Your task to perform on an android device: Open maps Image 0: 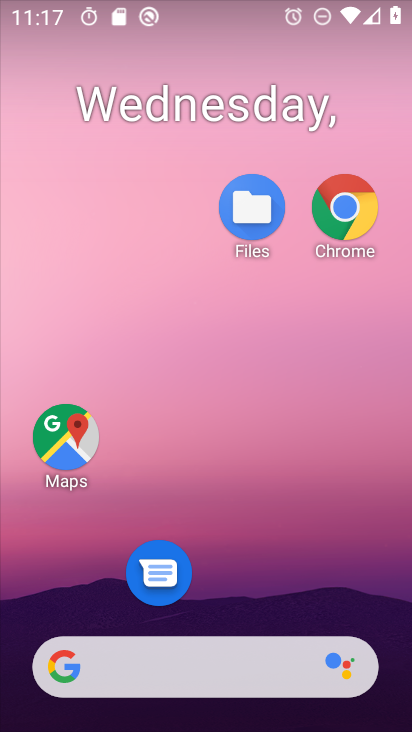
Step 0: drag from (207, 712) to (250, 179)
Your task to perform on an android device: Open maps Image 1: 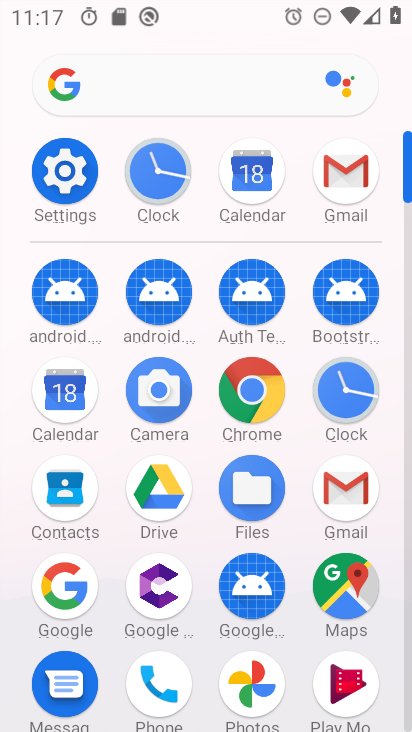
Step 1: drag from (229, 493) to (227, 267)
Your task to perform on an android device: Open maps Image 2: 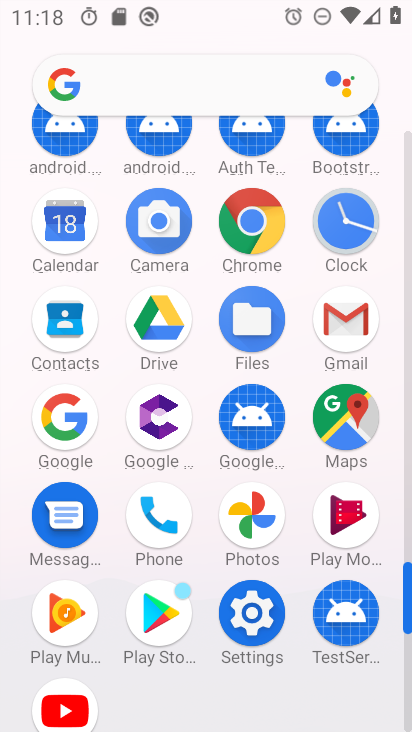
Step 2: click (340, 427)
Your task to perform on an android device: Open maps Image 3: 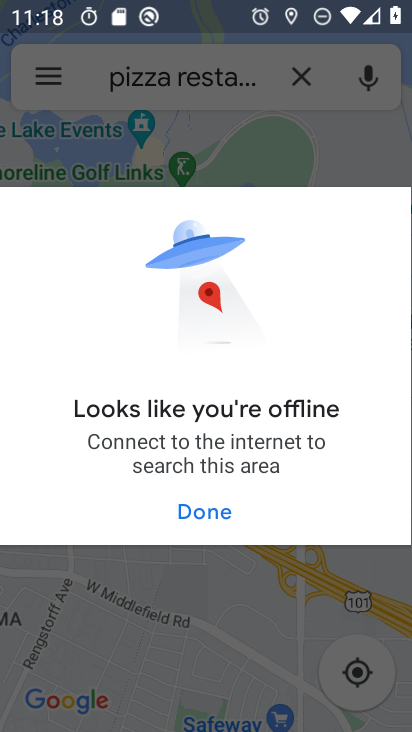
Step 3: click (206, 508)
Your task to perform on an android device: Open maps Image 4: 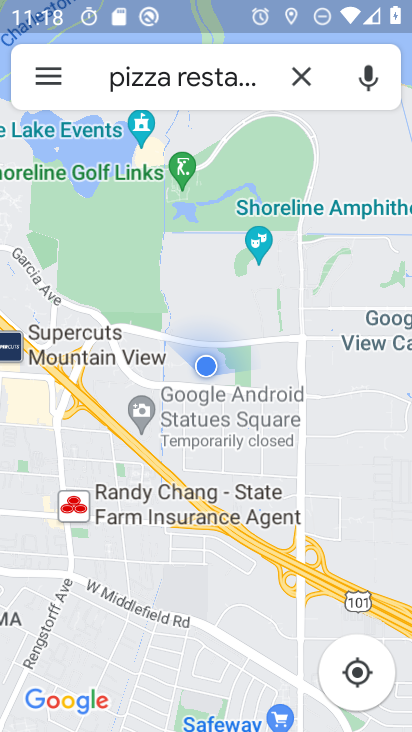
Step 4: task complete